Your task to perform on an android device: See recent photos Image 0: 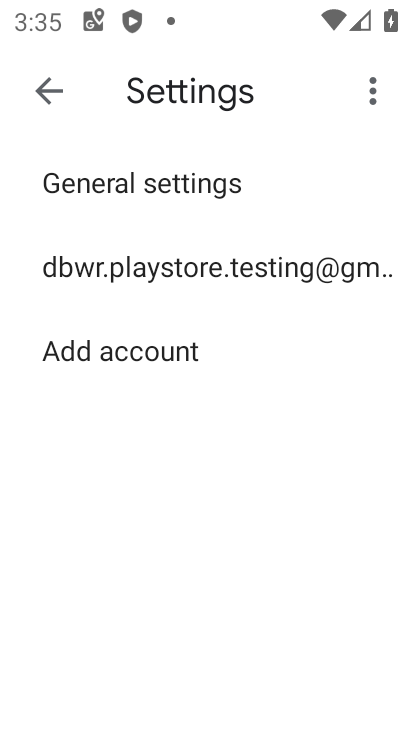
Step 0: press home button
Your task to perform on an android device: See recent photos Image 1: 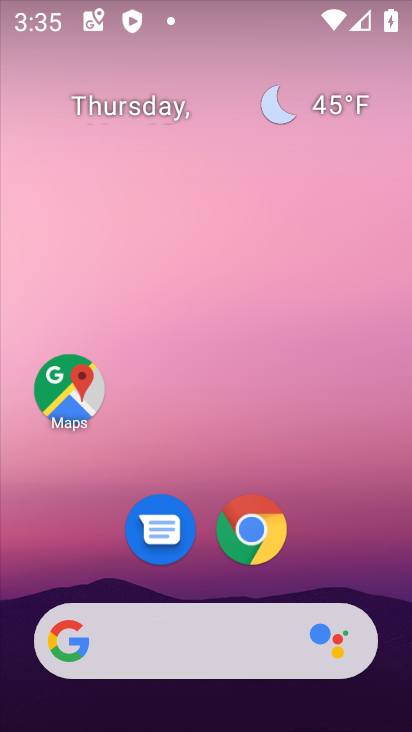
Step 1: drag from (335, 509) to (391, 71)
Your task to perform on an android device: See recent photos Image 2: 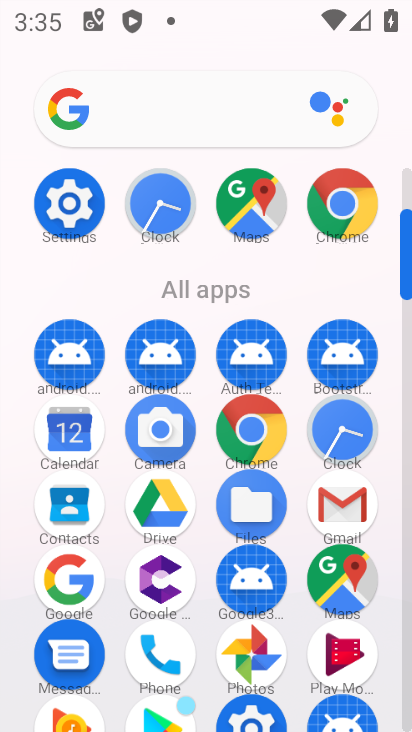
Step 2: drag from (377, 667) to (306, 348)
Your task to perform on an android device: See recent photos Image 3: 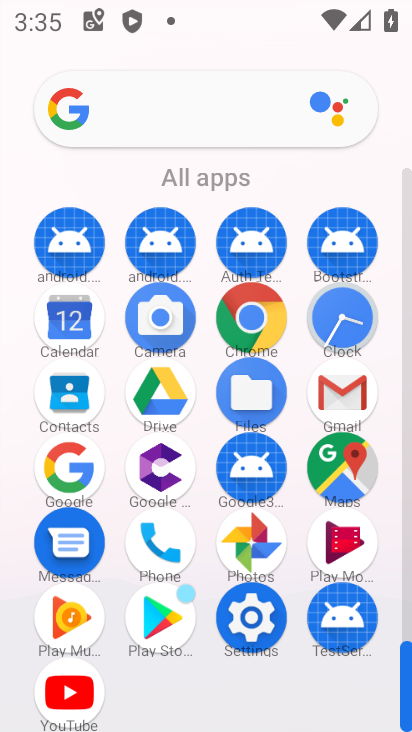
Step 3: click (249, 551)
Your task to perform on an android device: See recent photos Image 4: 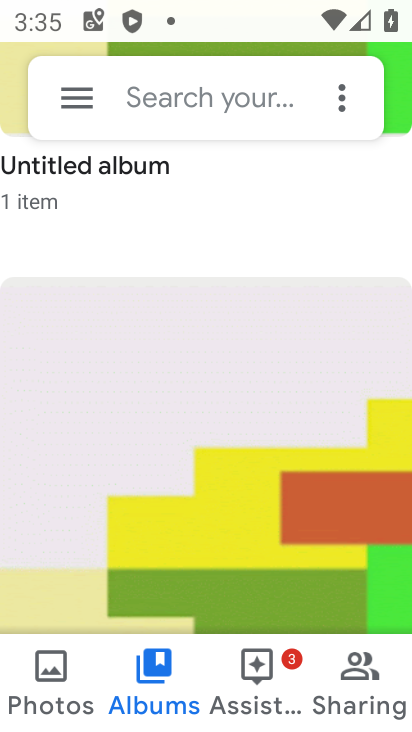
Step 4: click (66, 656)
Your task to perform on an android device: See recent photos Image 5: 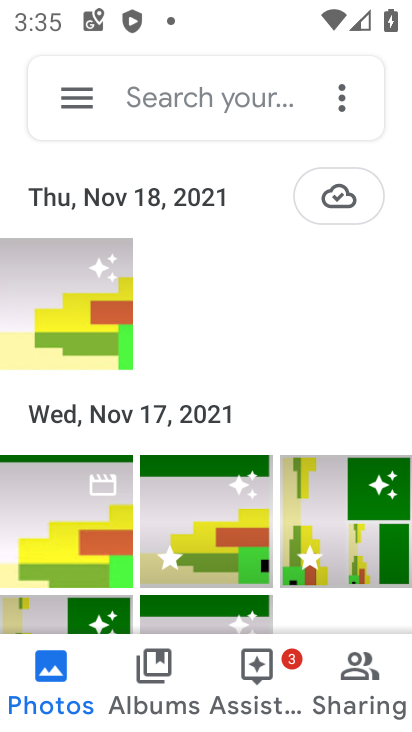
Step 5: drag from (340, 577) to (363, 88)
Your task to perform on an android device: See recent photos Image 6: 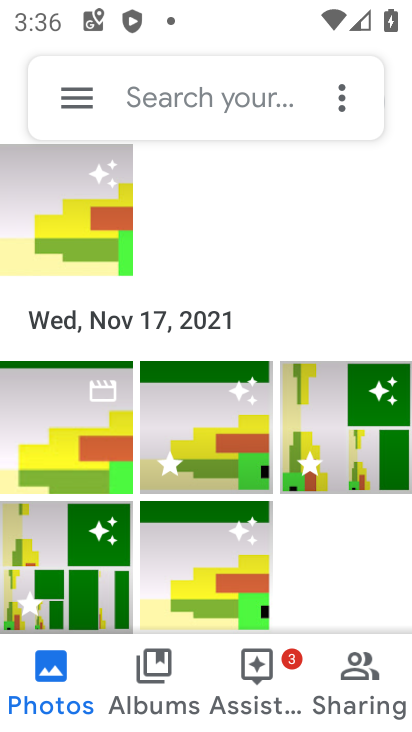
Step 6: click (103, 456)
Your task to perform on an android device: See recent photos Image 7: 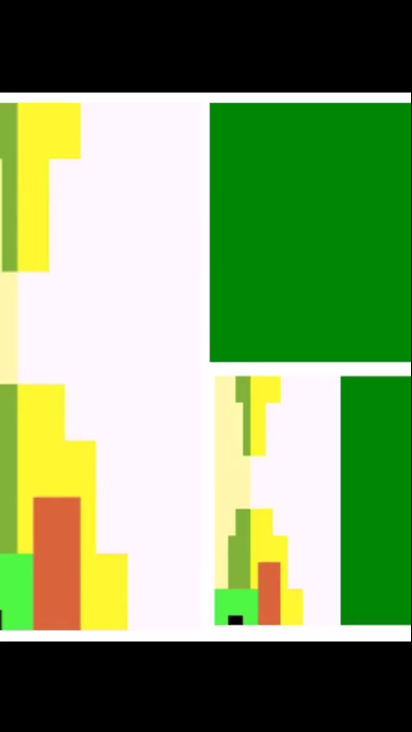
Step 7: task complete